Your task to perform on an android device: See recent photos Image 0: 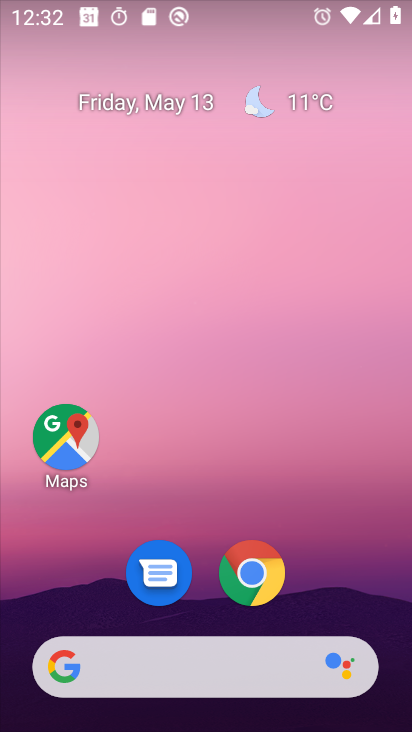
Step 0: drag from (386, 598) to (354, 294)
Your task to perform on an android device: See recent photos Image 1: 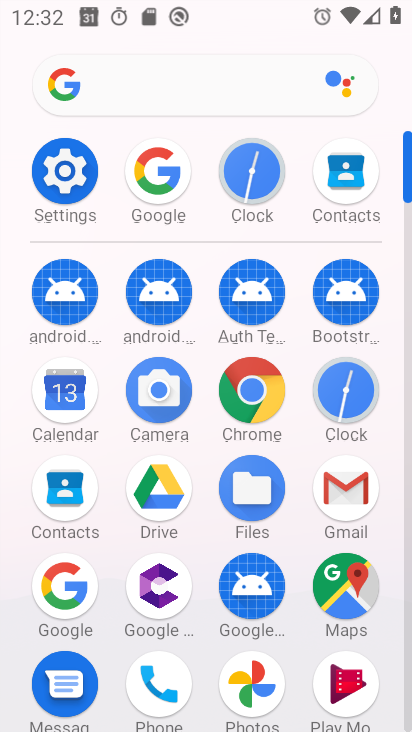
Step 1: click (245, 675)
Your task to perform on an android device: See recent photos Image 2: 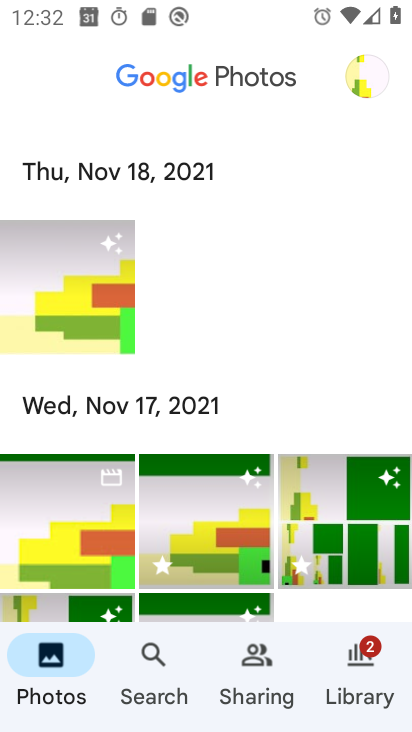
Step 2: click (92, 283)
Your task to perform on an android device: See recent photos Image 3: 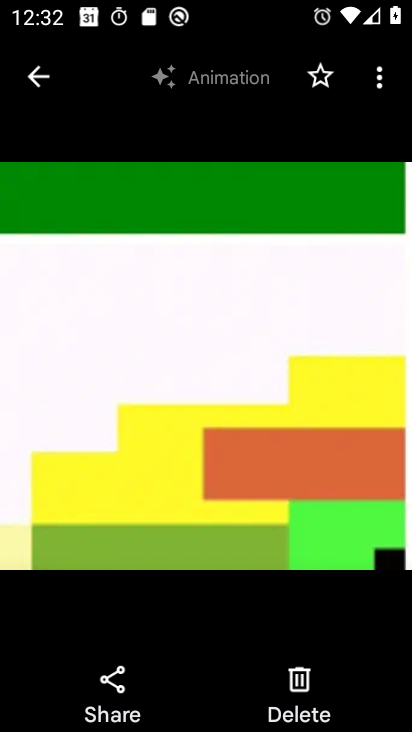
Step 3: click (23, 79)
Your task to perform on an android device: See recent photos Image 4: 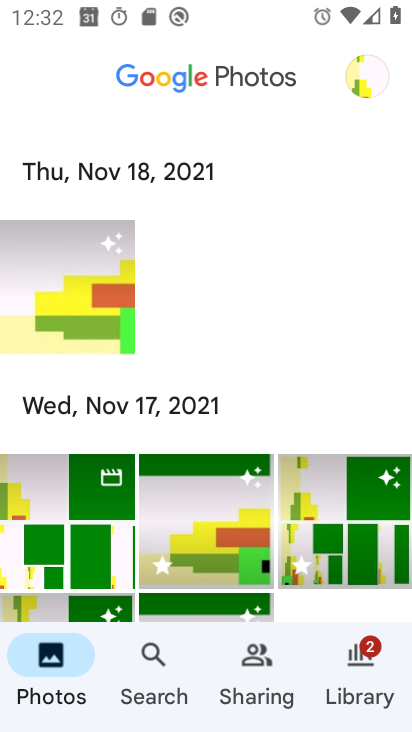
Step 4: task complete